Your task to perform on an android device: Show me popular videos on Youtube Image 0: 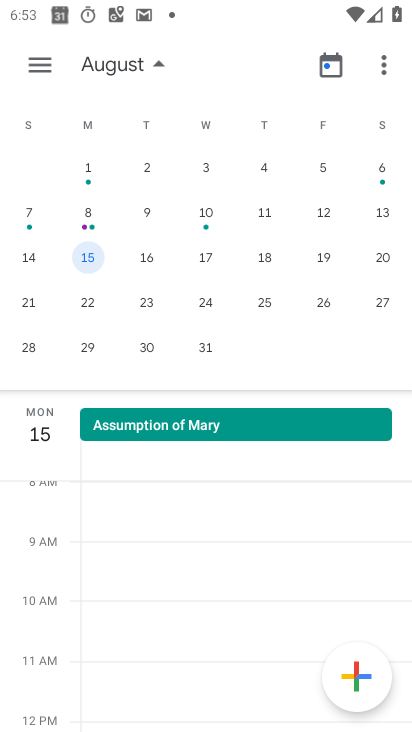
Step 0: press home button
Your task to perform on an android device: Show me popular videos on Youtube Image 1: 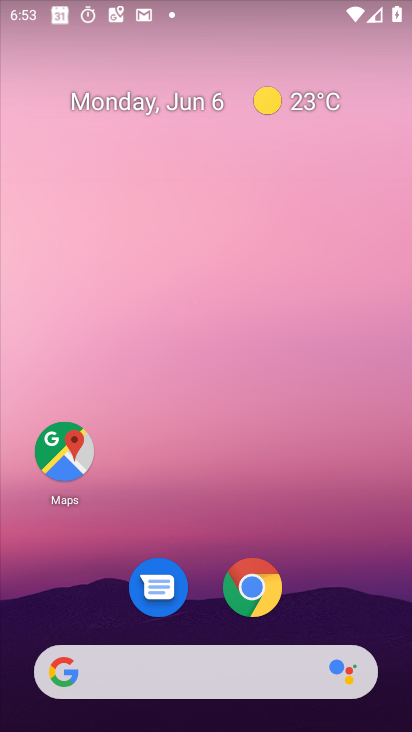
Step 1: drag from (385, 653) to (259, 46)
Your task to perform on an android device: Show me popular videos on Youtube Image 2: 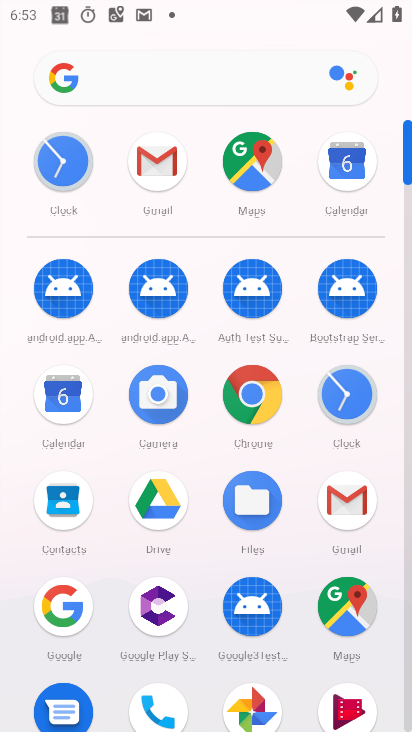
Step 2: drag from (298, 665) to (280, 212)
Your task to perform on an android device: Show me popular videos on Youtube Image 3: 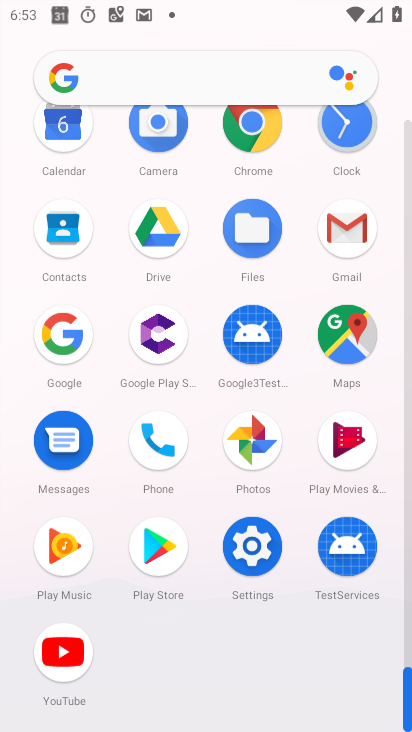
Step 3: click (280, 111)
Your task to perform on an android device: Show me popular videos on Youtube Image 4: 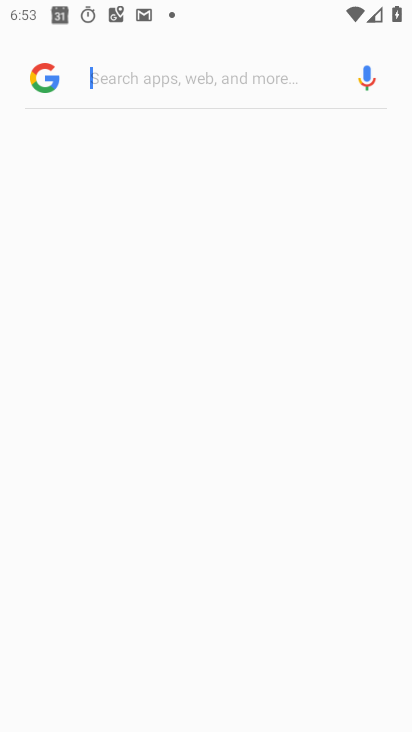
Step 4: click (71, 653)
Your task to perform on an android device: Show me popular videos on Youtube Image 5: 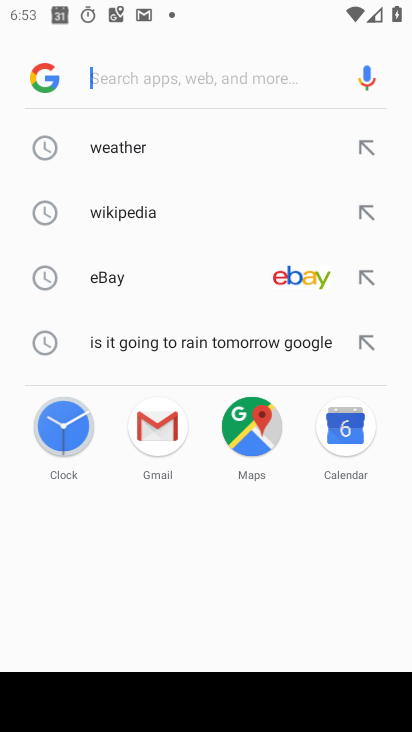
Step 5: press home button
Your task to perform on an android device: Show me popular videos on Youtube Image 6: 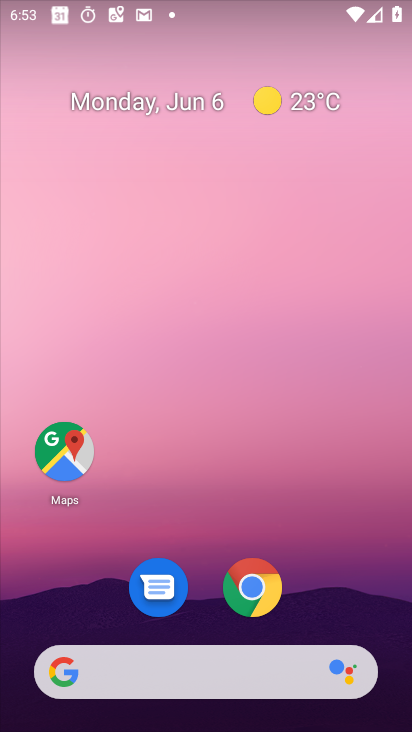
Step 6: drag from (341, 603) to (290, 11)
Your task to perform on an android device: Show me popular videos on Youtube Image 7: 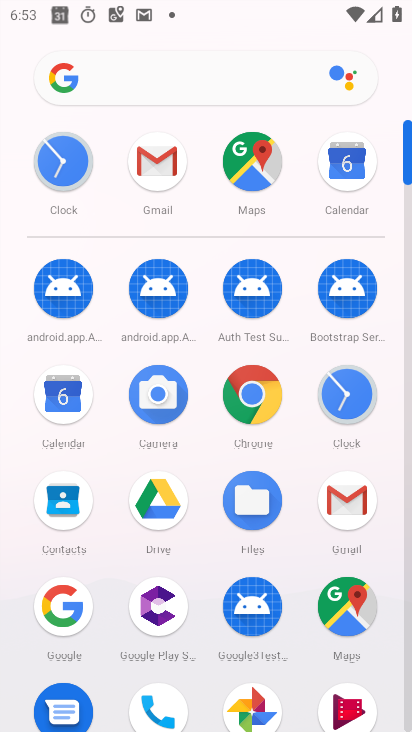
Step 7: drag from (303, 696) to (291, 165)
Your task to perform on an android device: Show me popular videos on Youtube Image 8: 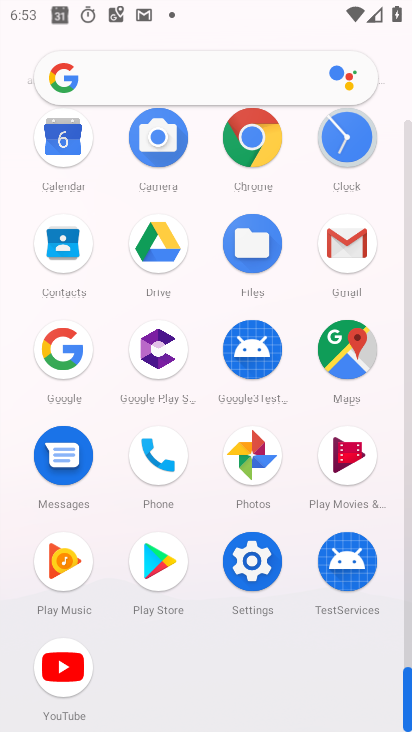
Step 8: click (46, 658)
Your task to perform on an android device: Show me popular videos on Youtube Image 9: 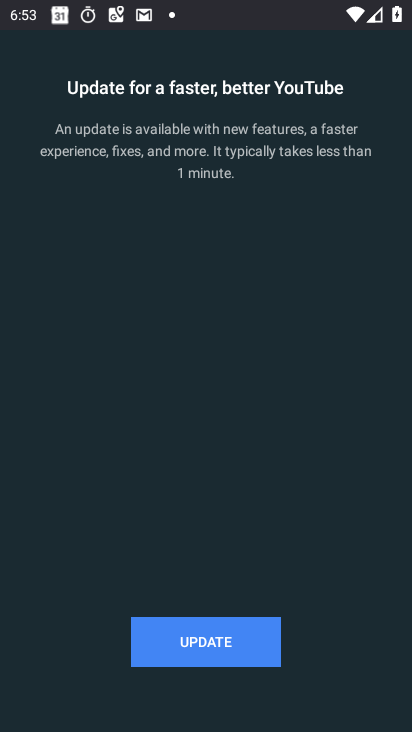
Step 9: click (250, 638)
Your task to perform on an android device: Show me popular videos on Youtube Image 10: 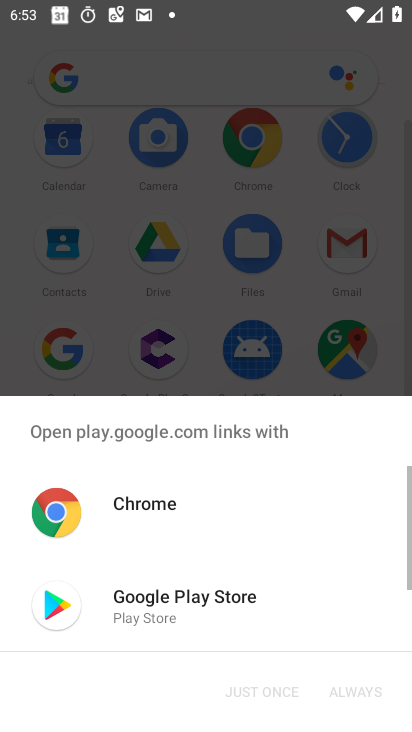
Step 10: click (140, 600)
Your task to perform on an android device: Show me popular videos on Youtube Image 11: 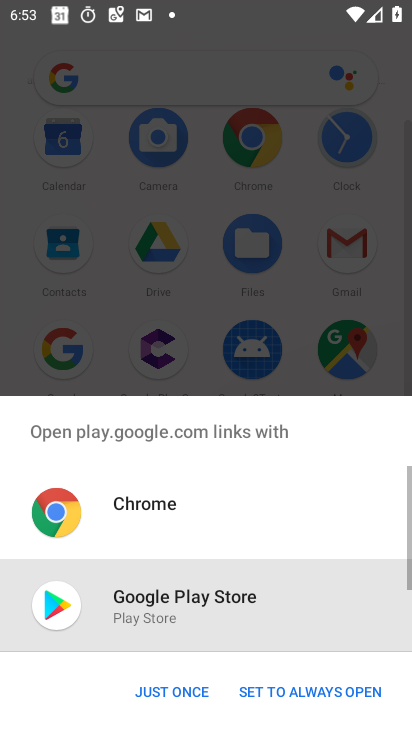
Step 11: click (172, 691)
Your task to perform on an android device: Show me popular videos on Youtube Image 12: 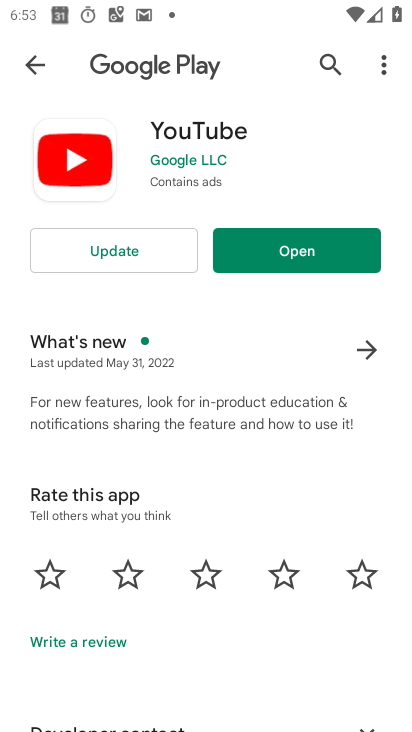
Step 12: click (144, 255)
Your task to perform on an android device: Show me popular videos on Youtube Image 13: 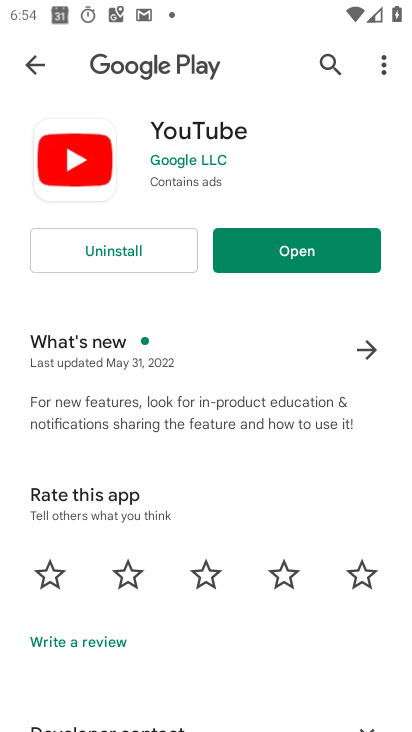
Step 13: click (259, 244)
Your task to perform on an android device: Show me popular videos on Youtube Image 14: 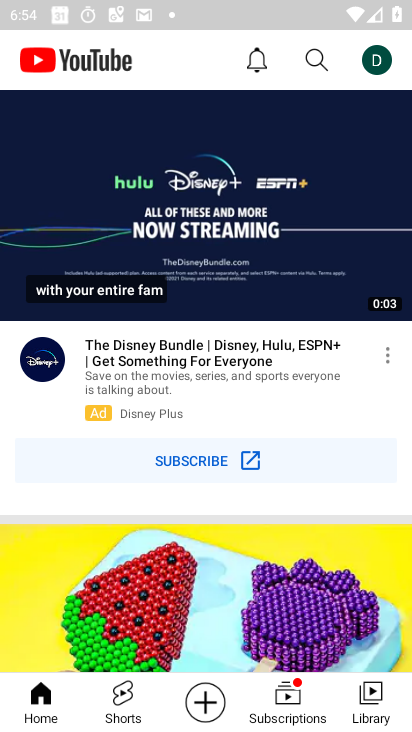
Step 14: task complete